Your task to perform on an android device: Go to Android settings Image 0: 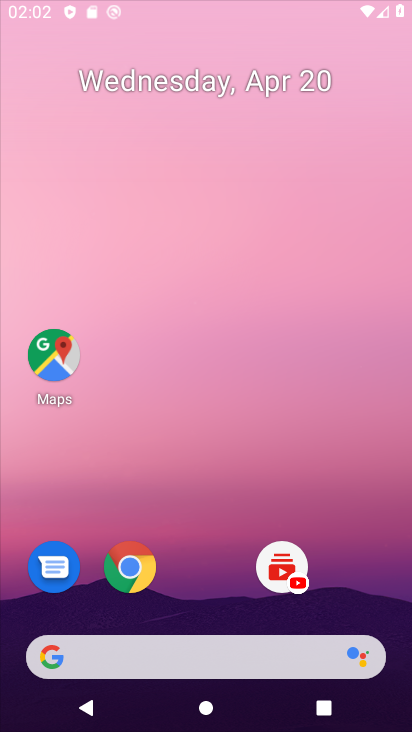
Step 0: click (318, 317)
Your task to perform on an android device: Go to Android settings Image 1: 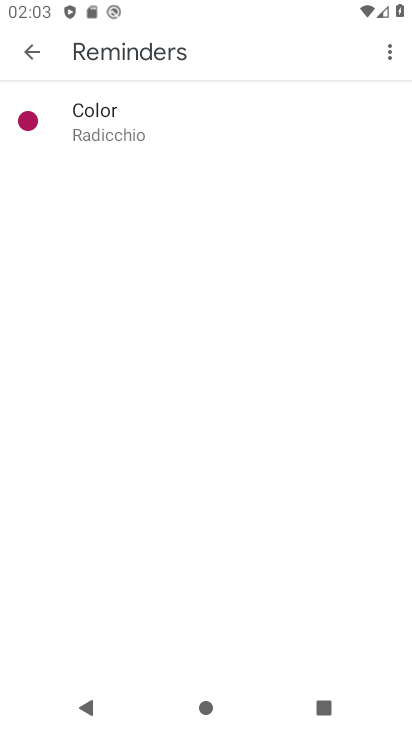
Step 1: drag from (249, 226) to (302, 396)
Your task to perform on an android device: Go to Android settings Image 2: 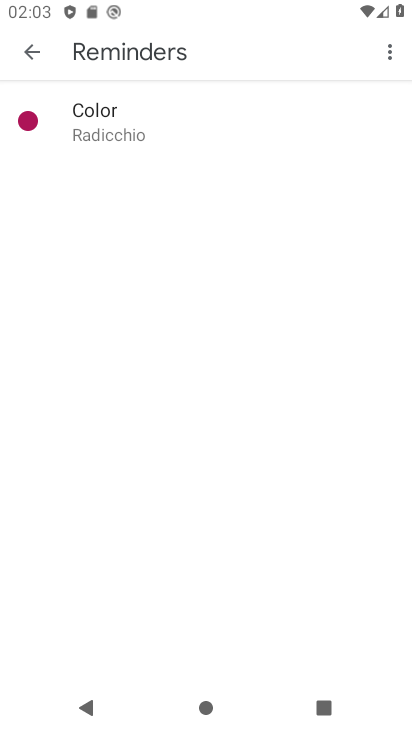
Step 2: press back button
Your task to perform on an android device: Go to Android settings Image 3: 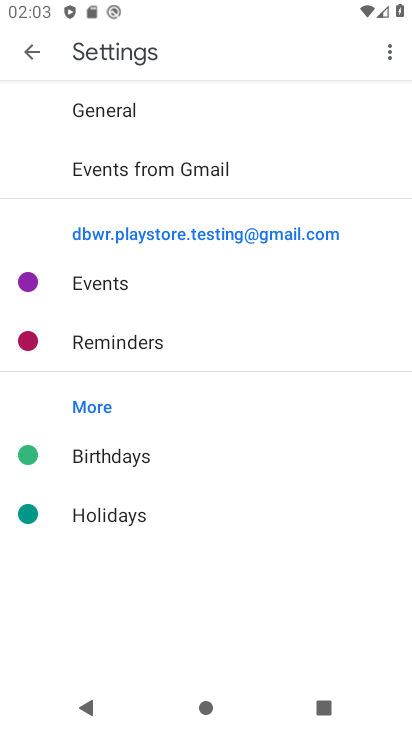
Step 3: press home button
Your task to perform on an android device: Go to Android settings Image 4: 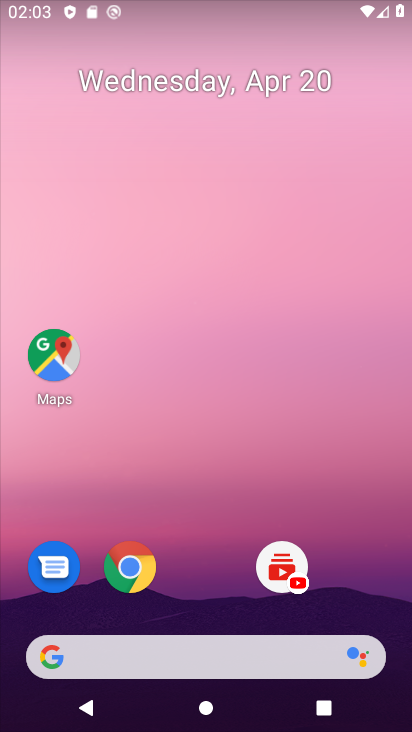
Step 4: drag from (199, 620) to (206, 244)
Your task to perform on an android device: Go to Android settings Image 5: 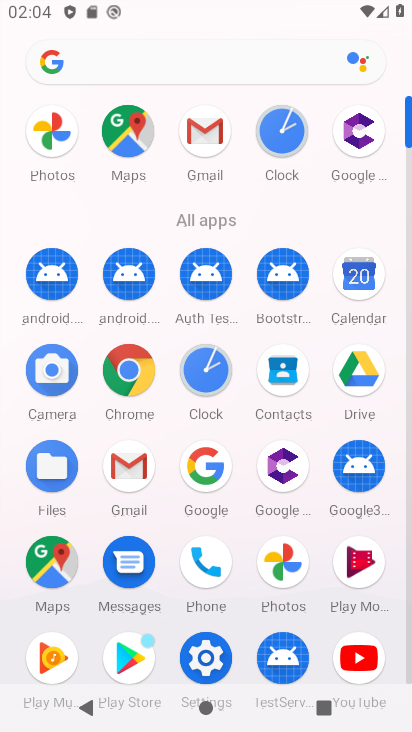
Step 5: click (208, 665)
Your task to perform on an android device: Go to Android settings Image 6: 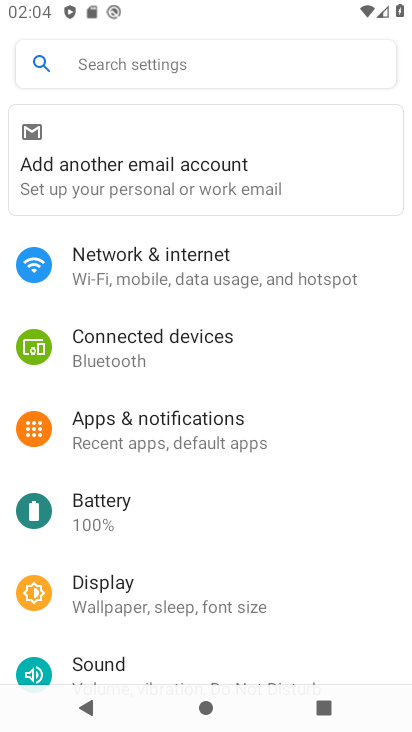
Step 6: drag from (211, 638) to (225, 232)
Your task to perform on an android device: Go to Android settings Image 7: 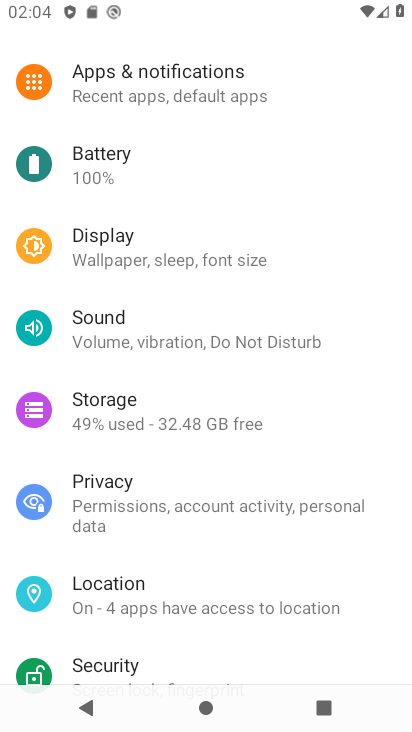
Step 7: drag from (207, 619) to (212, 253)
Your task to perform on an android device: Go to Android settings Image 8: 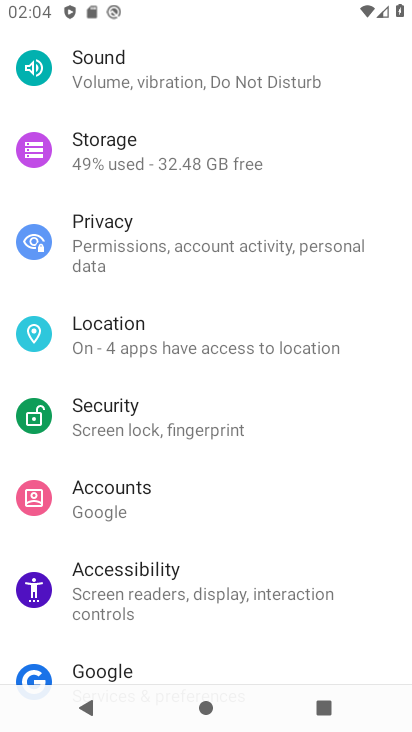
Step 8: drag from (166, 597) to (281, 245)
Your task to perform on an android device: Go to Android settings Image 9: 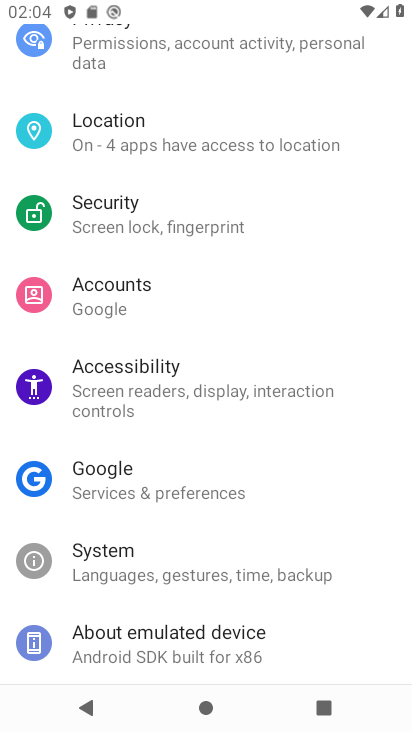
Step 9: drag from (232, 605) to (274, 40)
Your task to perform on an android device: Go to Android settings Image 10: 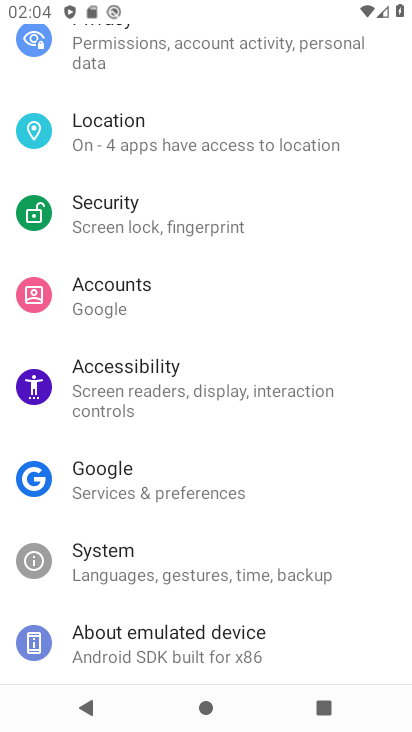
Step 10: drag from (267, 540) to (267, 346)
Your task to perform on an android device: Go to Android settings Image 11: 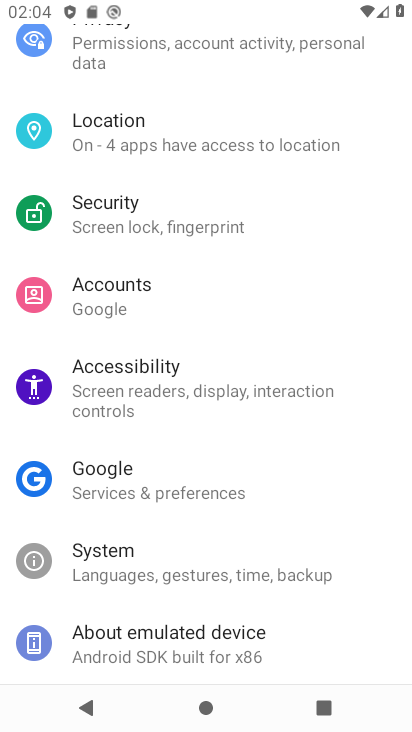
Step 11: click (194, 621)
Your task to perform on an android device: Go to Android settings Image 12: 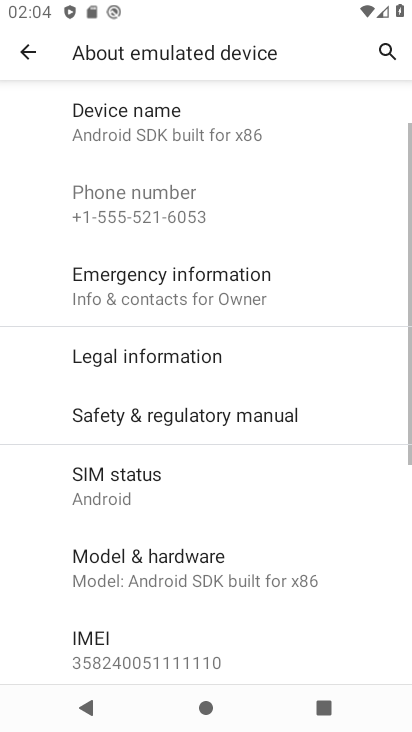
Step 12: drag from (188, 638) to (332, 119)
Your task to perform on an android device: Go to Android settings Image 13: 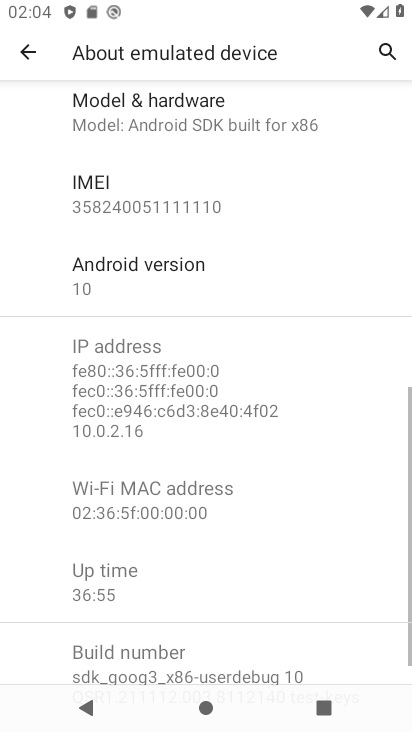
Step 13: click (199, 283)
Your task to perform on an android device: Go to Android settings Image 14: 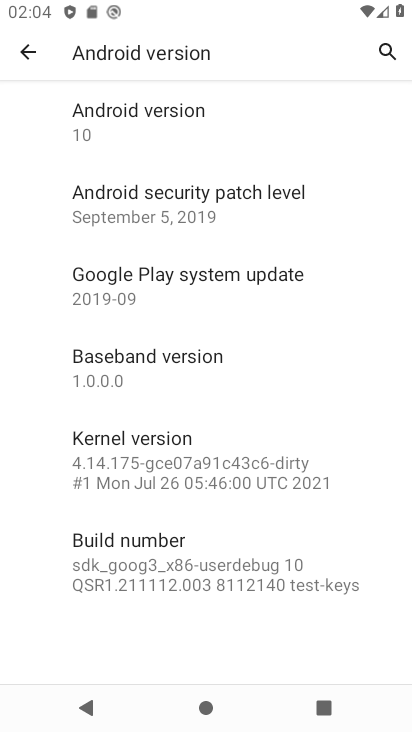
Step 14: task complete